Your task to perform on an android device: turn on airplane mode Image 0: 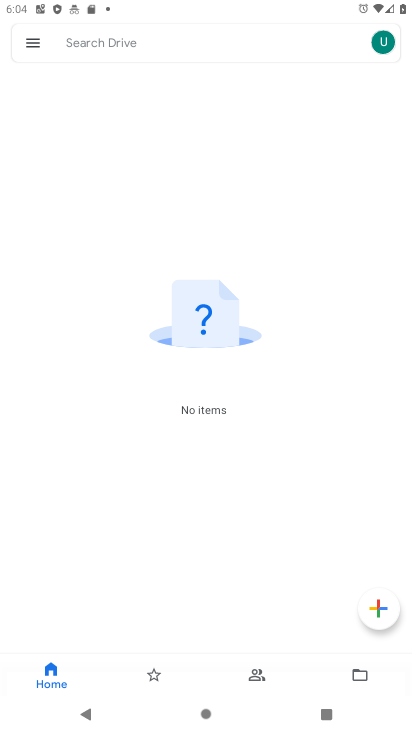
Step 0: press home button
Your task to perform on an android device: turn on airplane mode Image 1: 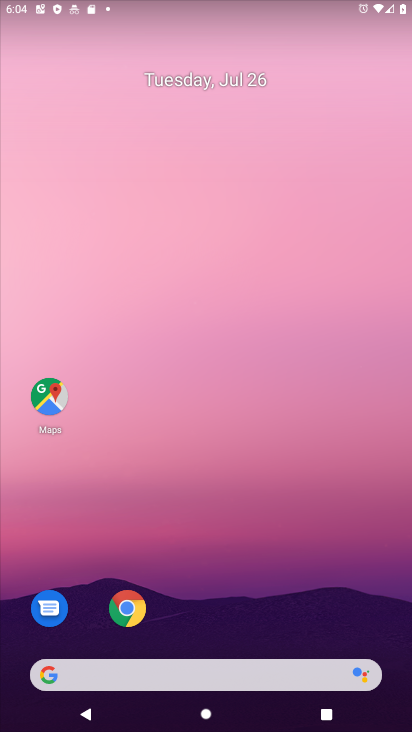
Step 1: drag from (209, 4) to (175, 501)
Your task to perform on an android device: turn on airplane mode Image 2: 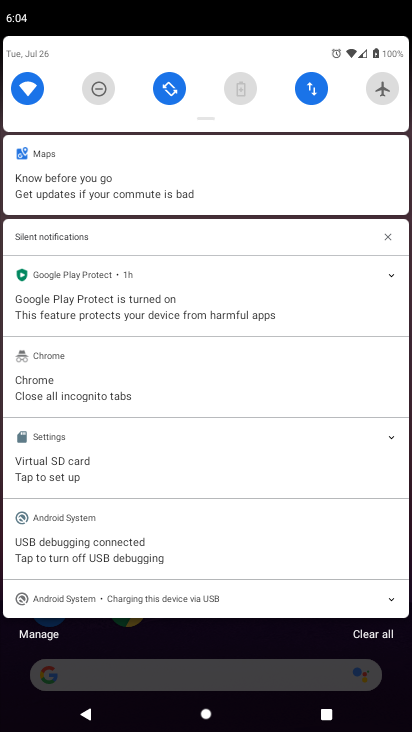
Step 2: click (378, 86)
Your task to perform on an android device: turn on airplane mode Image 3: 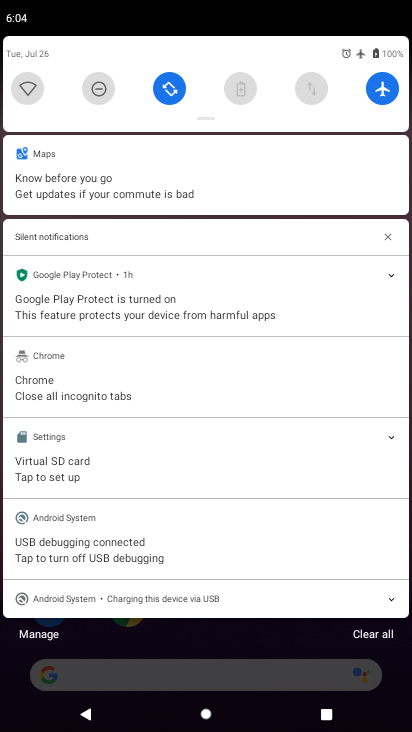
Step 3: task complete